Your task to perform on an android device: empty trash in the gmail app Image 0: 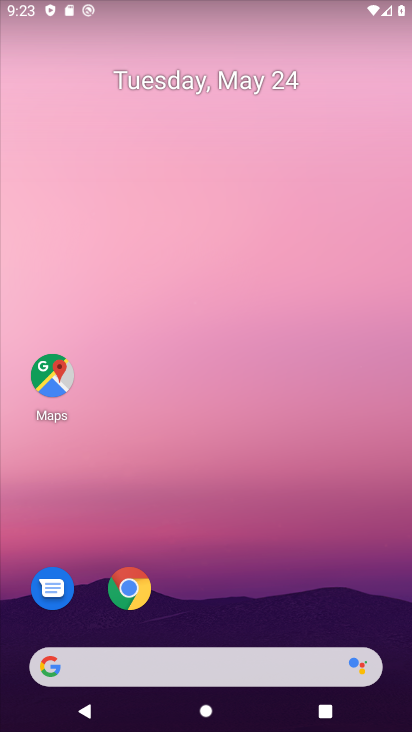
Step 0: drag from (206, 552) to (259, 104)
Your task to perform on an android device: empty trash in the gmail app Image 1: 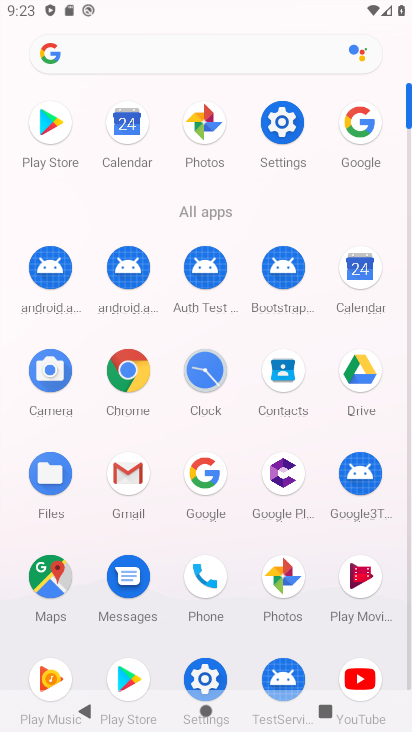
Step 1: click (122, 480)
Your task to perform on an android device: empty trash in the gmail app Image 2: 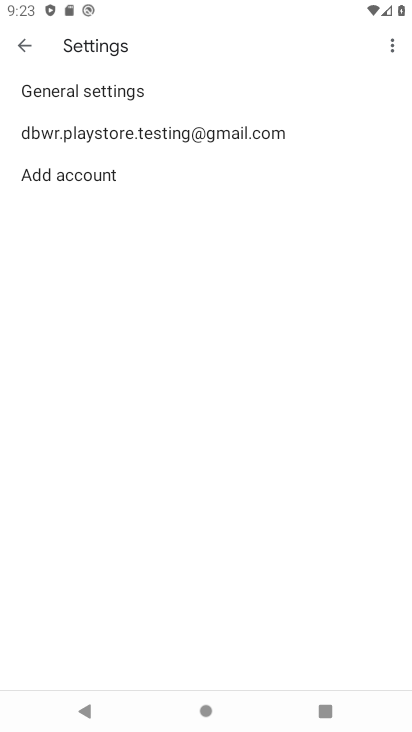
Step 2: click (160, 128)
Your task to perform on an android device: empty trash in the gmail app Image 3: 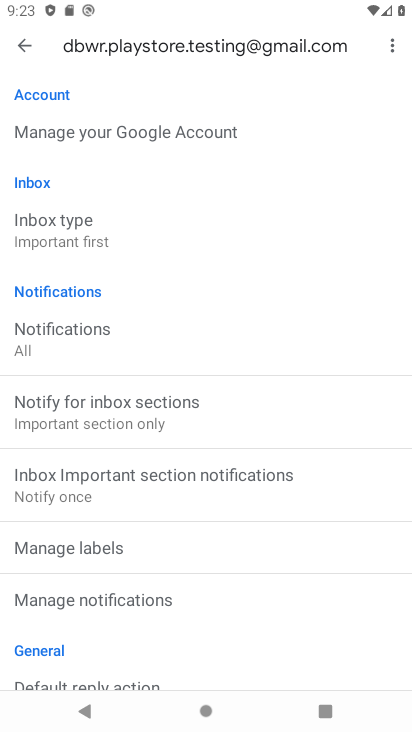
Step 3: click (16, 36)
Your task to perform on an android device: empty trash in the gmail app Image 4: 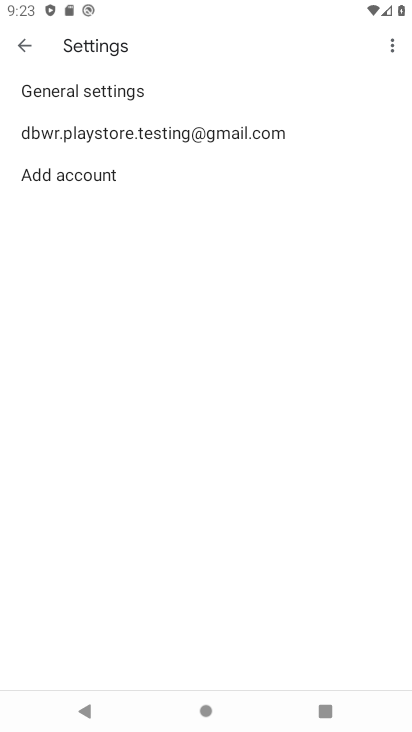
Step 4: click (16, 36)
Your task to perform on an android device: empty trash in the gmail app Image 5: 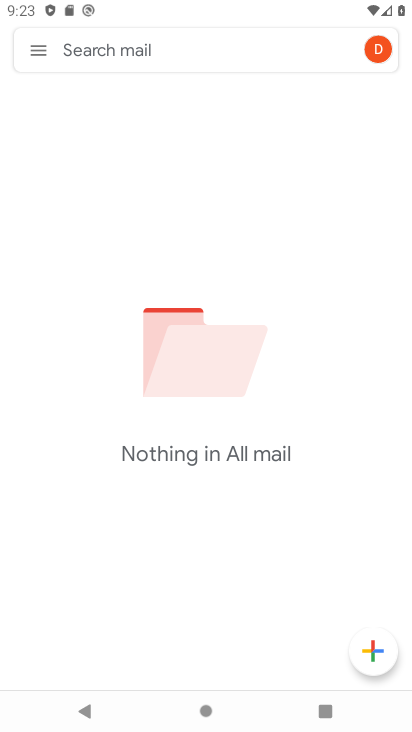
Step 5: click (42, 50)
Your task to perform on an android device: empty trash in the gmail app Image 6: 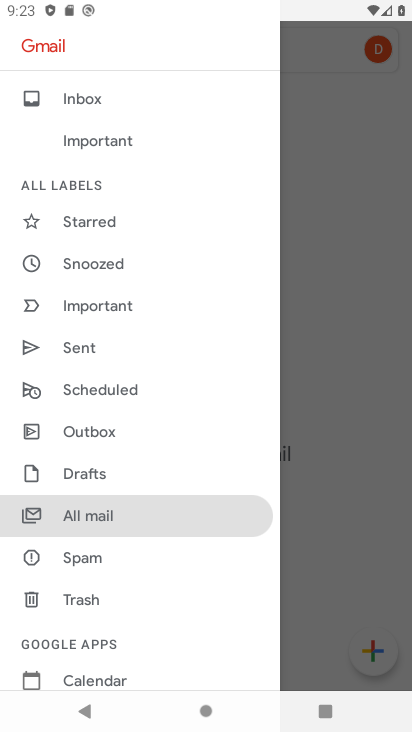
Step 6: click (101, 605)
Your task to perform on an android device: empty trash in the gmail app Image 7: 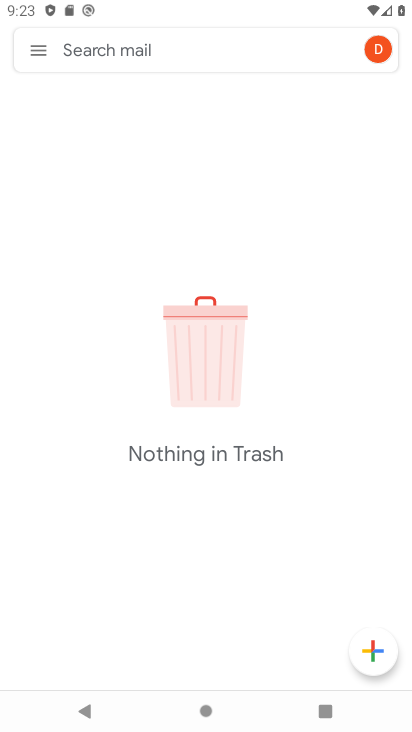
Step 7: task complete